Your task to perform on an android device: turn on priority inbox in the gmail app Image 0: 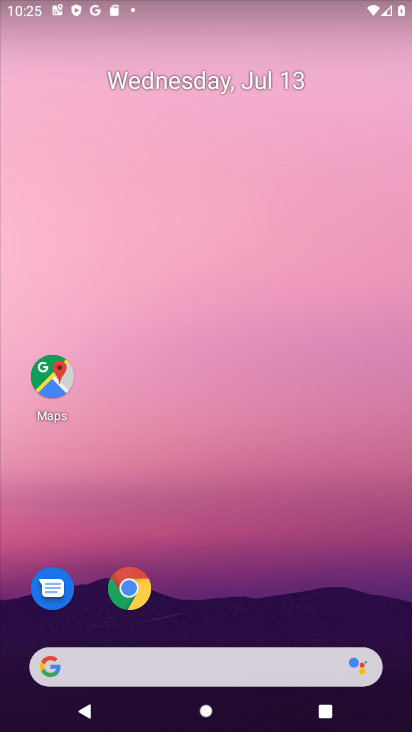
Step 0: drag from (232, 585) to (229, 151)
Your task to perform on an android device: turn on priority inbox in the gmail app Image 1: 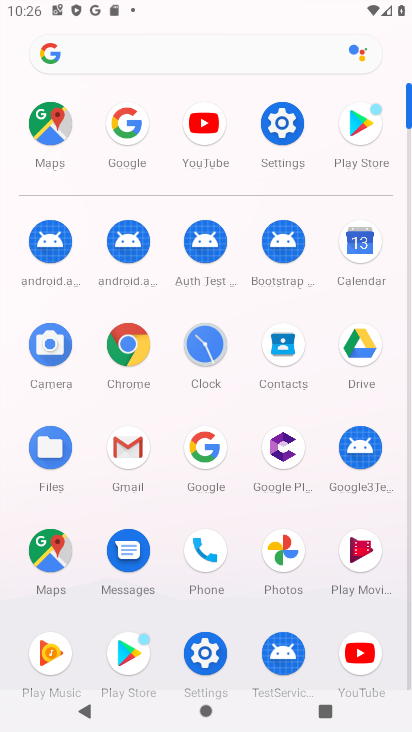
Step 1: click (130, 448)
Your task to perform on an android device: turn on priority inbox in the gmail app Image 2: 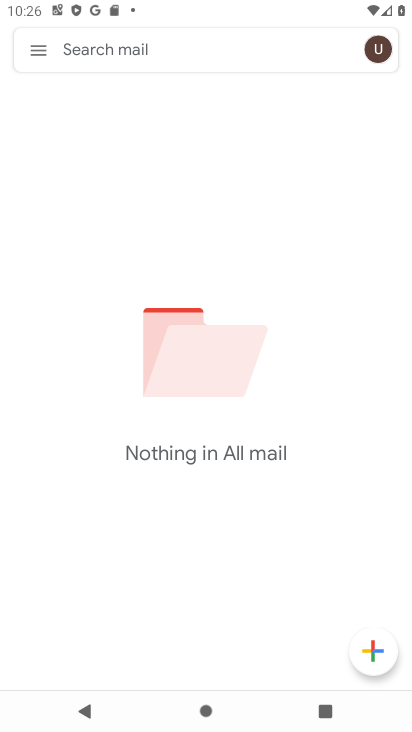
Step 2: click (41, 53)
Your task to perform on an android device: turn on priority inbox in the gmail app Image 3: 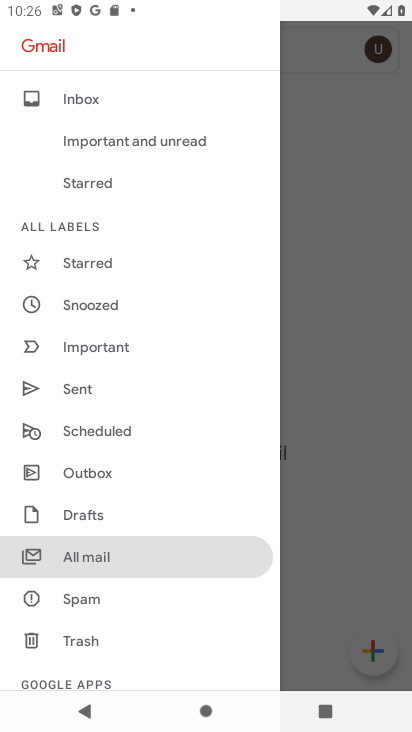
Step 3: drag from (106, 633) to (139, 194)
Your task to perform on an android device: turn on priority inbox in the gmail app Image 4: 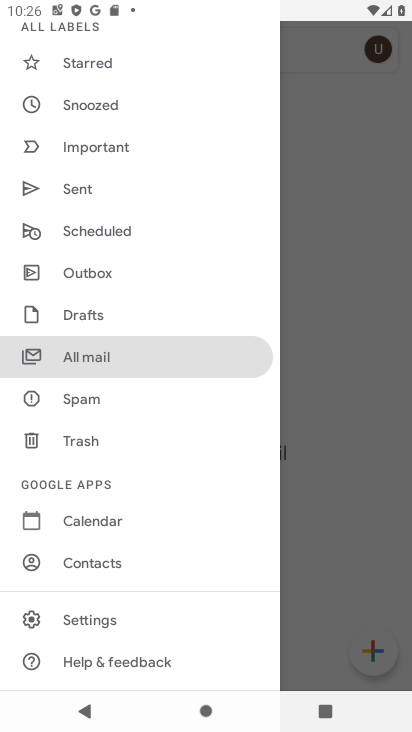
Step 4: click (98, 619)
Your task to perform on an android device: turn on priority inbox in the gmail app Image 5: 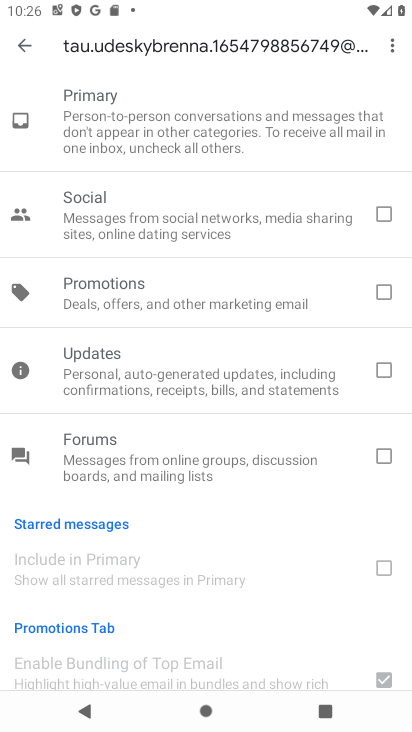
Step 5: task complete